Your task to perform on an android device: turn on javascript in the chrome app Image 0: 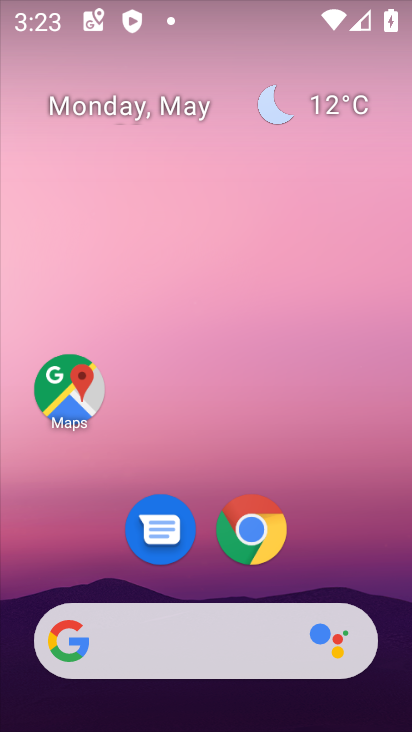
Step 0: click (257, 518)
Your task to perform on an android device: turn on javascript in the chrome app Image 1: 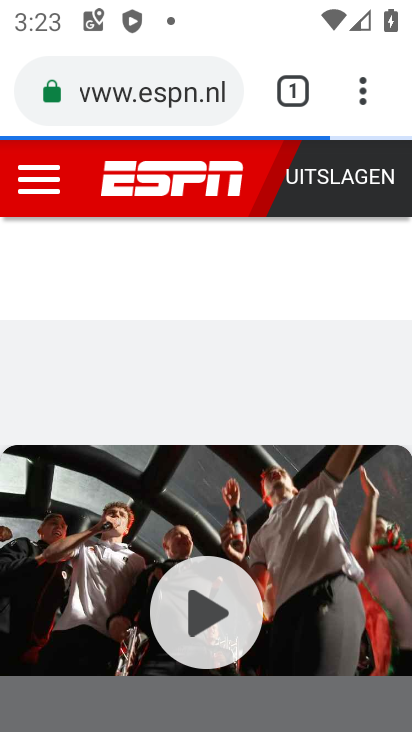
Step 1: click (362, 77)
Your task to perform on an android device: turn on javascript in the chrome app Image 2: 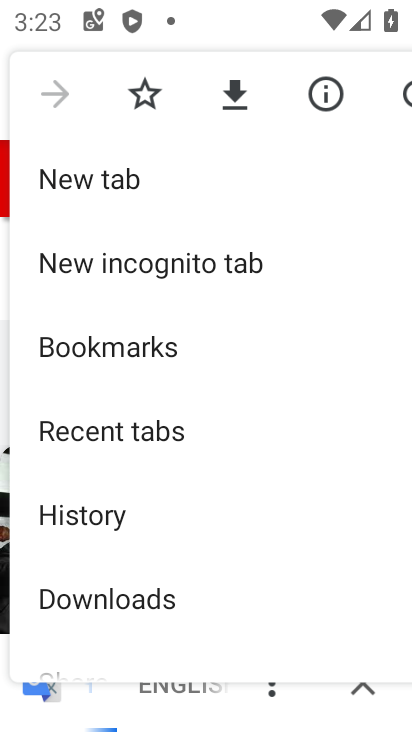
Step 2: drag from (185, 560) to (194, 179)
Your task to perform on an android device: turn on javascript in the chrome app Image 3: 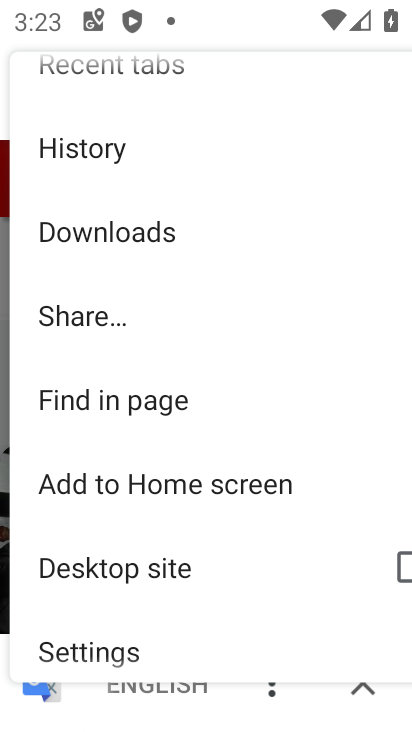
Step 3: drag from (105, 549) to (156, 281)
Your task to perform on an android device: turn on javascript in the chrome app Image 4: 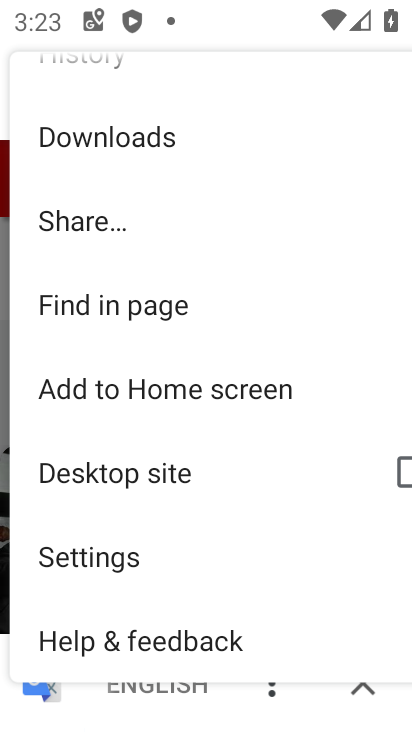
Step 4: click (87, 563)
Your task to perform on an android device: turn on javascript in the chrome app Image 5: 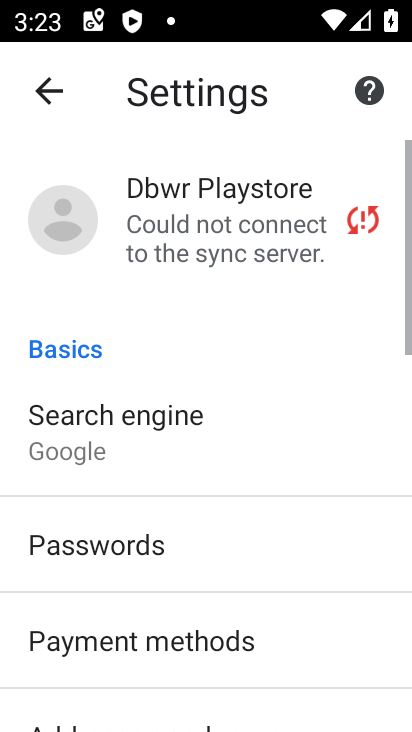
Step 5: drag from (282, 512) to (315, 97)
Your task to perform on an android device: turn on javascript in the chrome app Image 6: 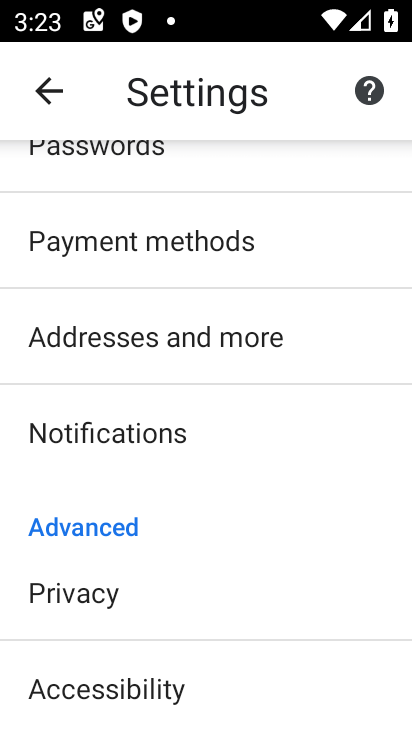
Step 6: drag from (232, 481) to (264, 84)
Your task to perform on an android device: turn on javascript in the chrome app Image 7: 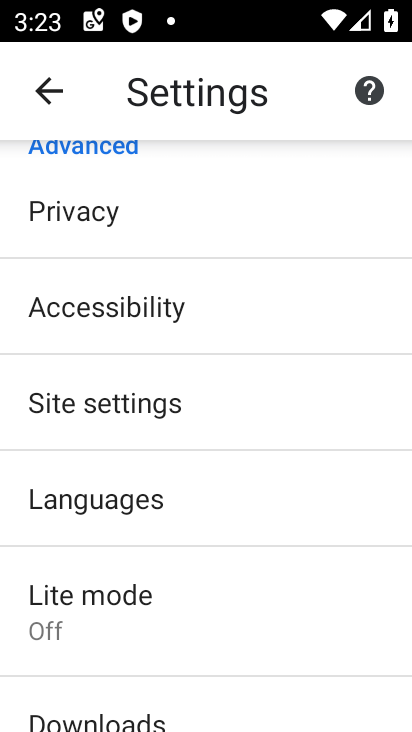
Step 7: click (165, 392)
Your task to perform on an android device: turn on javascript in the chrome app Image 8: 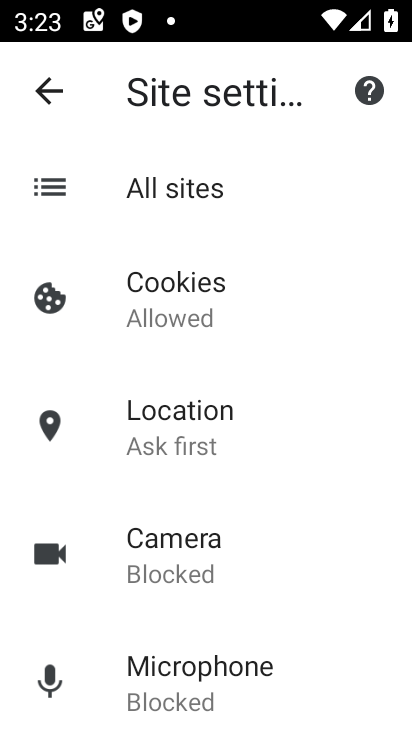
Step 8: drag from (226, 644) to (263, 230)
Your task to perform on an android device: turn on javascript in the chrome app Image 9: 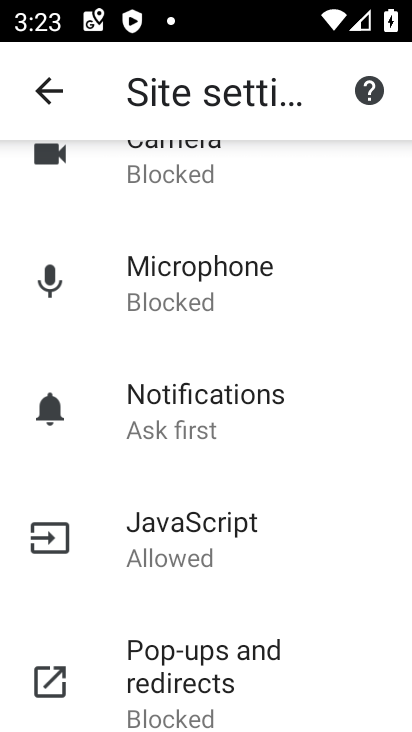
Step 9: click (166, 536)
Your task to perform on an android device: turn on javascript in the chrome app Image 10: 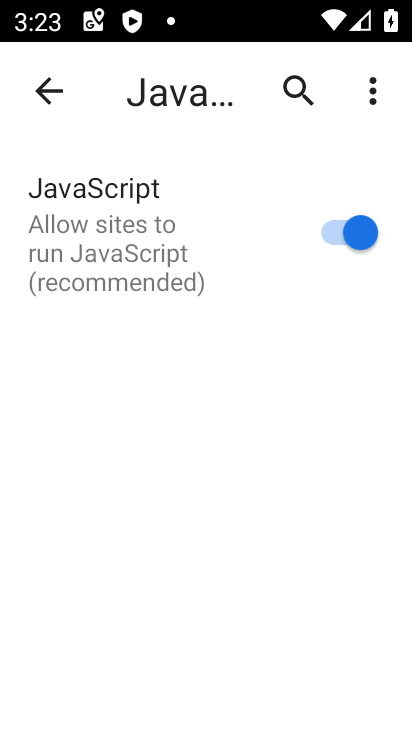
Step 10: task complete